Your task to perform on an android device: check google app version Image 0: 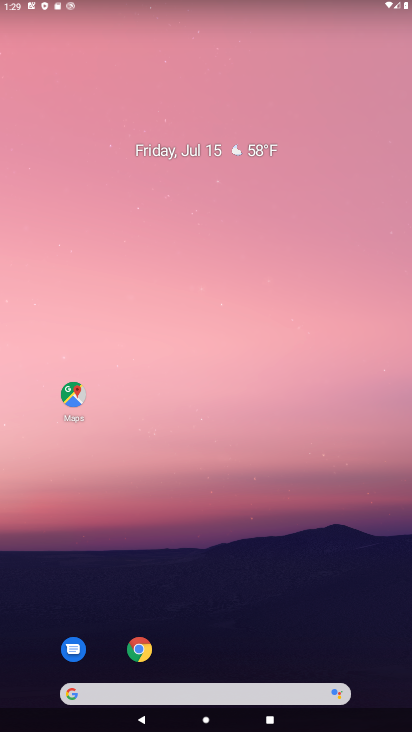
Step 0: drag from (181, 696) to (236, 64)
Your task to perform on an android device: check google app version Image 1: 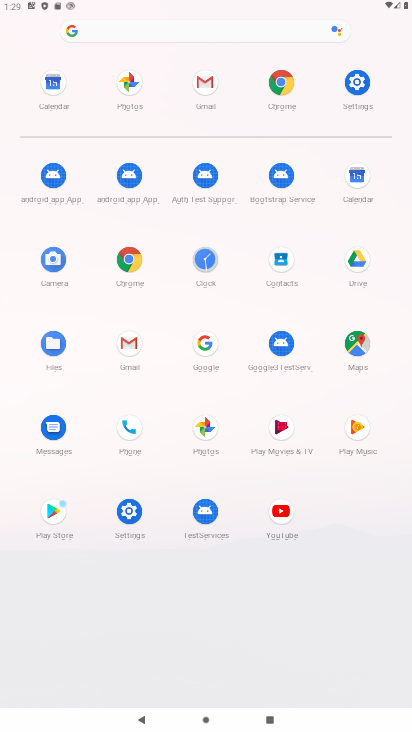
Step 1: click (136, 265)
Your task to perform on an android device: check google app version Image 2: 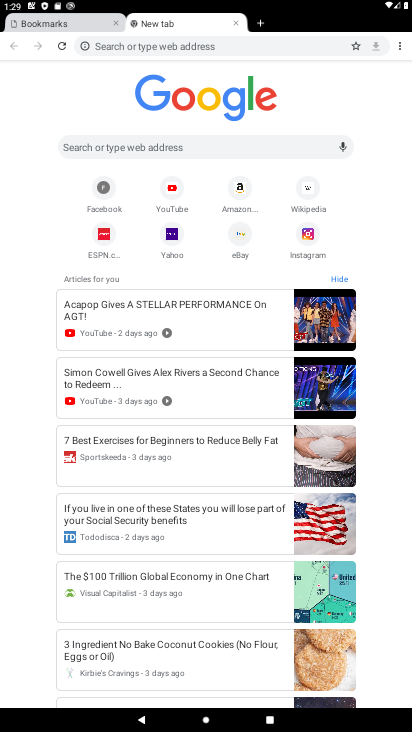
Step 2: drag from (396, 40) to (325, 217)
Your task to perform on an android device: check google app version Image 3: 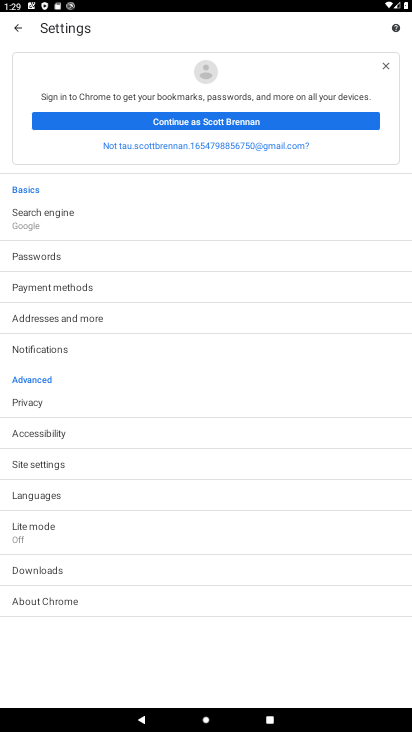
Step 3: press back button
Your task to perform on an android device: check google app version Image 4: 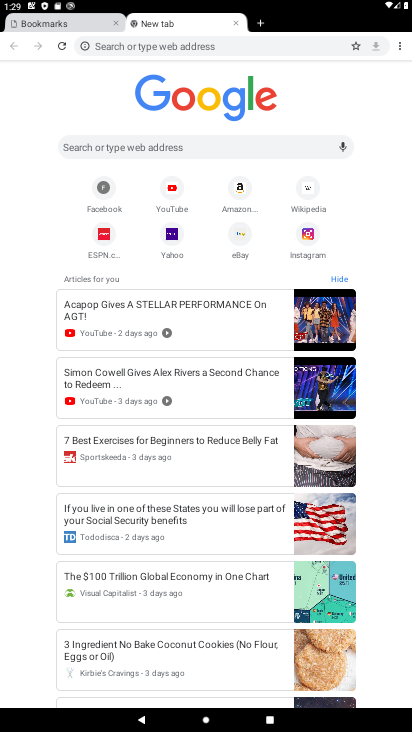
Step 4: click (400, 43)
Your task to perform on an android device: check google app version Image 5: 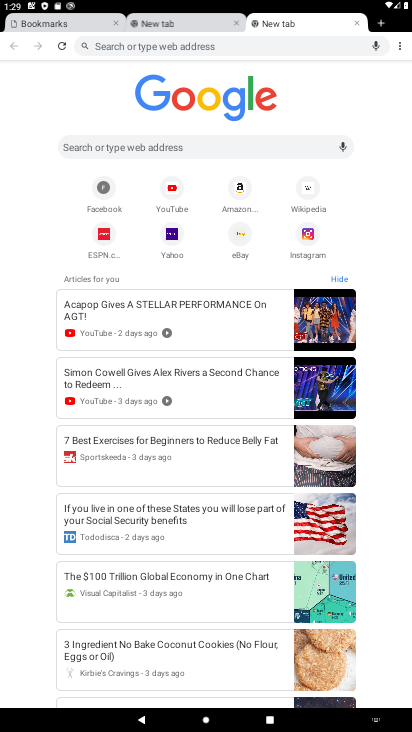
Step 5: drag from (401, 45) to (316, 242)
Your task to perform on an android device: check google app version Image 6: 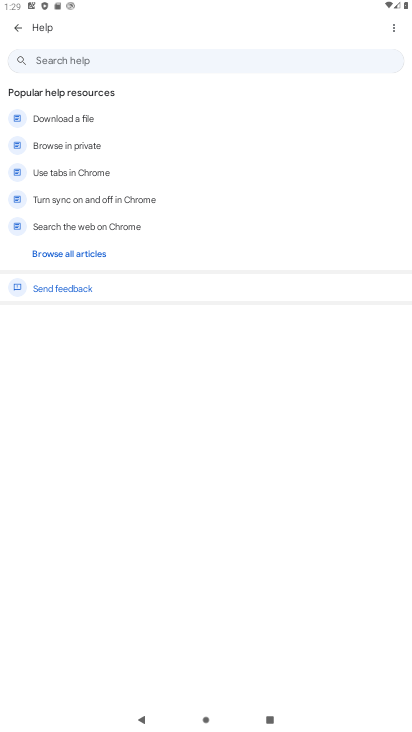
Step 6: click (395, 25)
Your task to perform on an android device: check google app version Image 7: 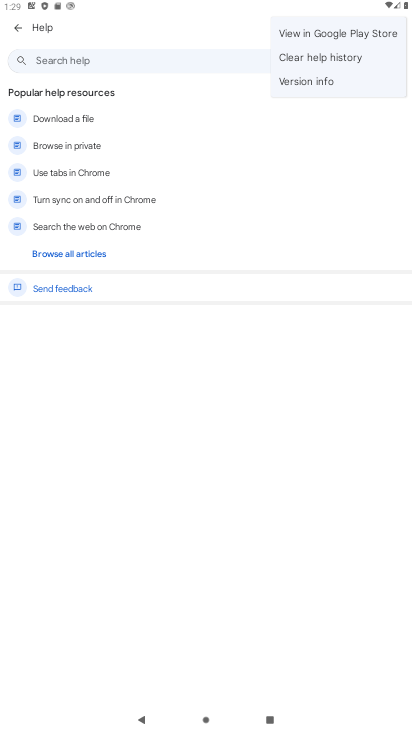
Step 7: click (326, 82)
Your task to perform on an android device: check google app version Image 8: 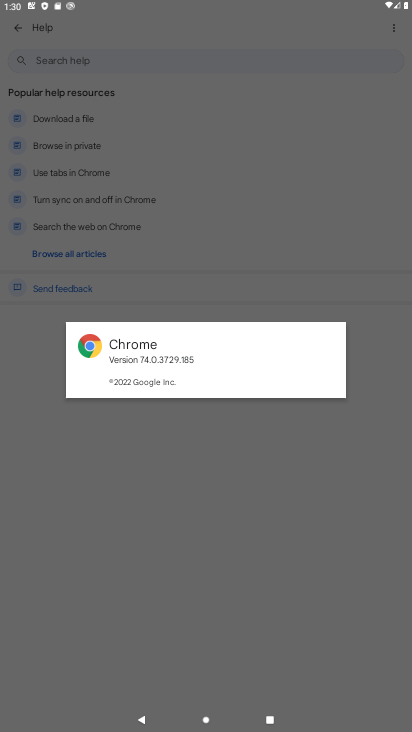
Step 8: task complete